Your task to perform on an android device: Open Google Image 0: 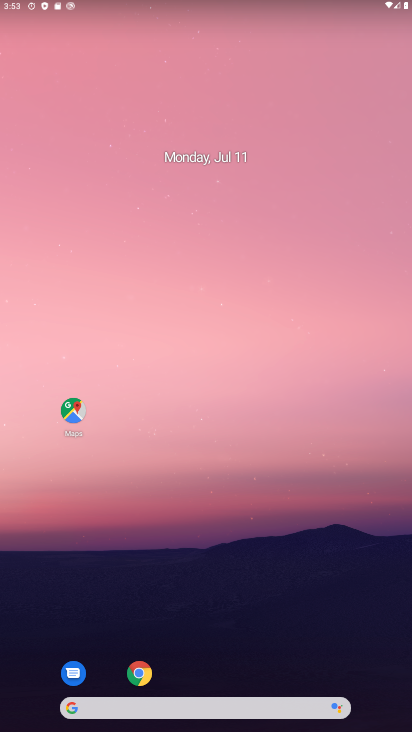
Step 0: drag from (299, 687) to (295, 90)
Your task to perform on an android device: Open Google Image 1: 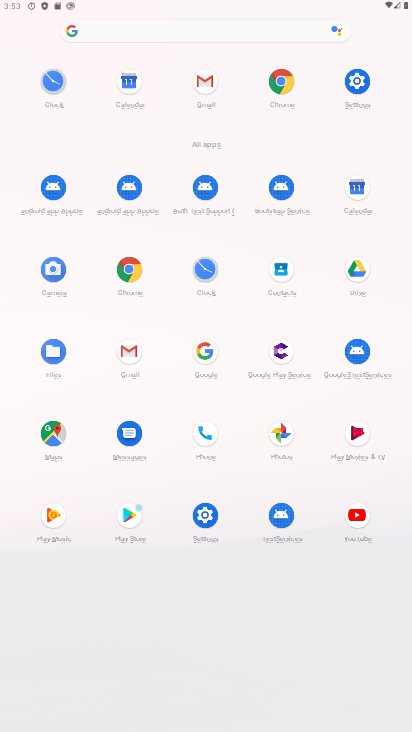
Step 1: click (204, 345)
Your task to perform on an android device: Open Google Image 2: 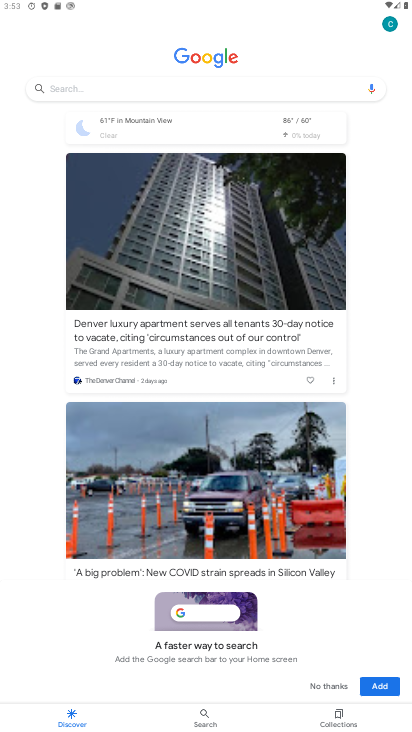
Step 2: task complete